Your task to perform on an android device: Open maps Image 0: 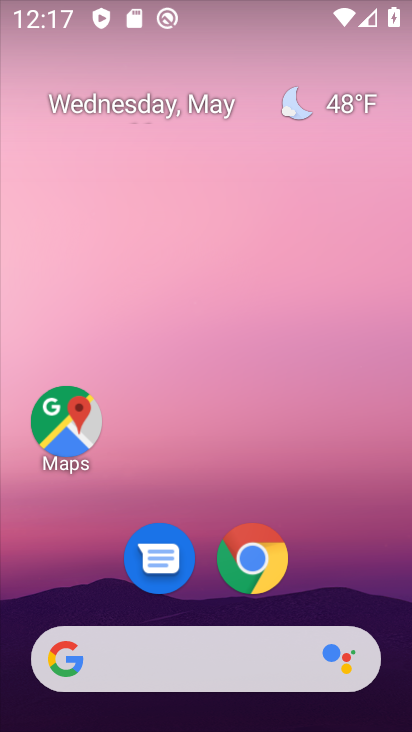
Step 0: drag from (337, 556) to (346, 125)
Your task to perform on an android device: Open maps Image 1: 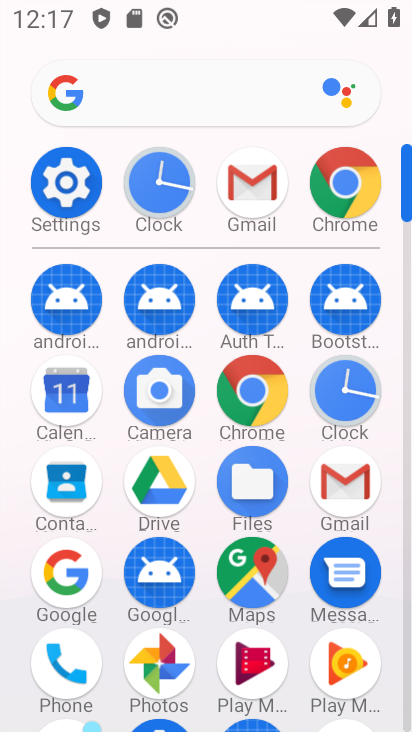
Step 1: drag from (304, 583) to (319, 244)
Your task to perform on an android device: Open maps Image 2: 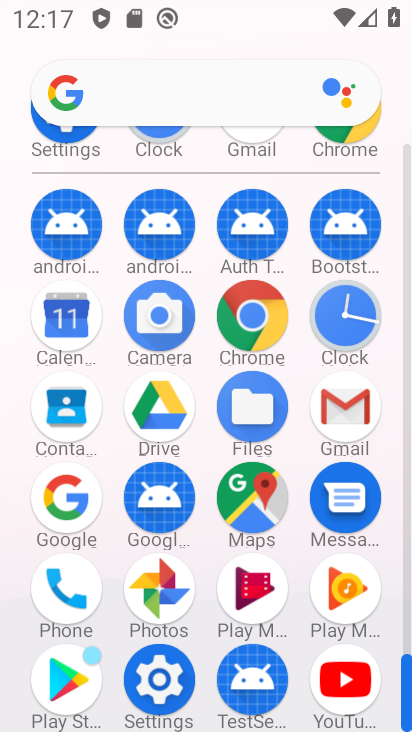
Step 2: click (235, 511)
Your task to perform on an android device: Open maps Image 3: 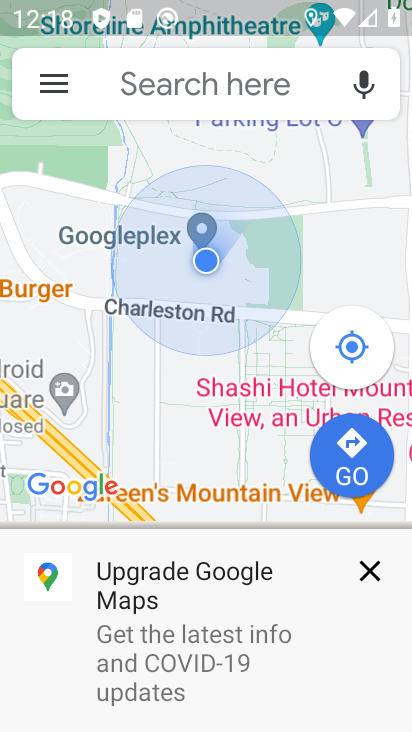
Step 3: task complete